Your task to perform on an android device: Open Google Maps Image 0: 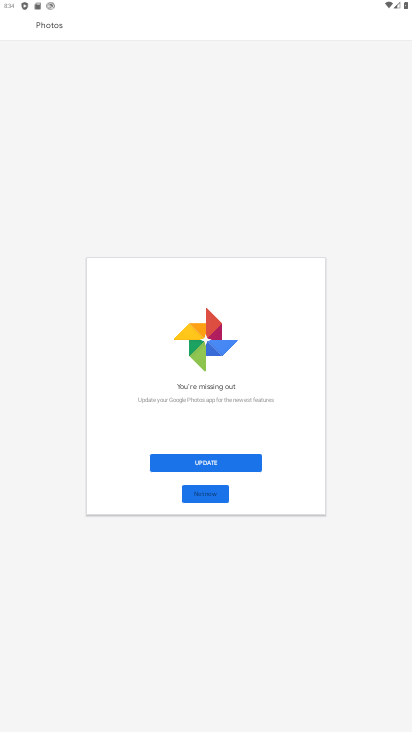
Step 0: press home button
Your task to perform on an android device: Open Google Maps Image 1: 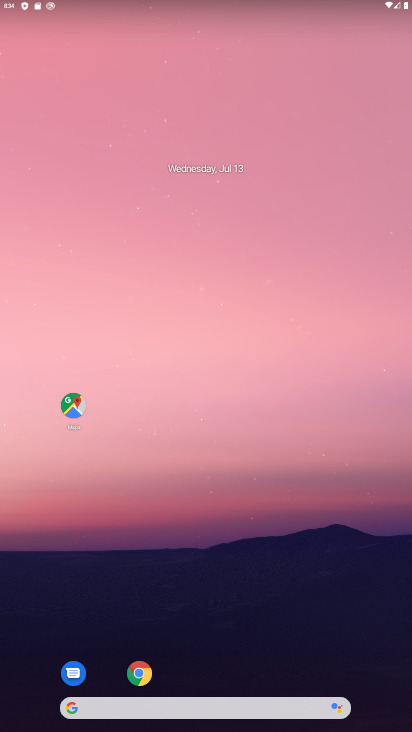
Step 1: click (64, 405)
Your task to perform on an android device: Open Google Maps Image 2: 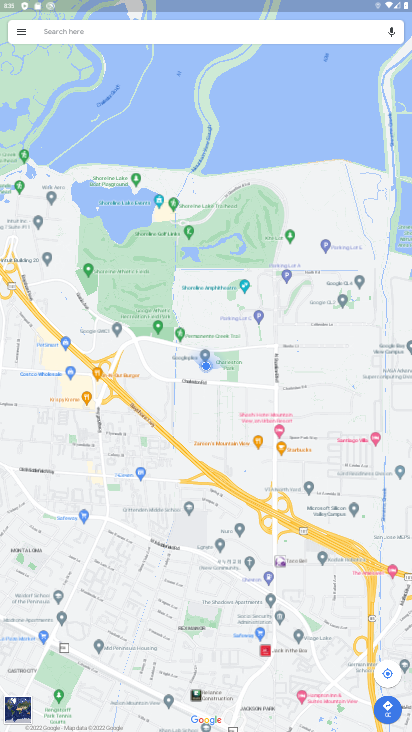
Step 2: task complete